Your task to perform on an android device: Open CNN.com Image 0: 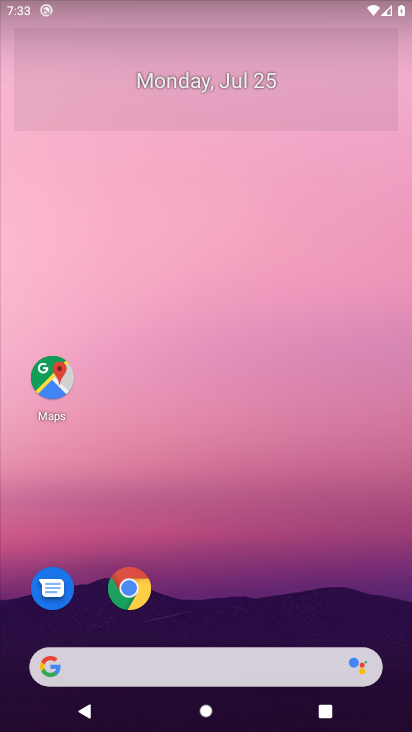
Step 0: click (286, 661)
Your task to perform on an android device: Open CNN.com Image 1: 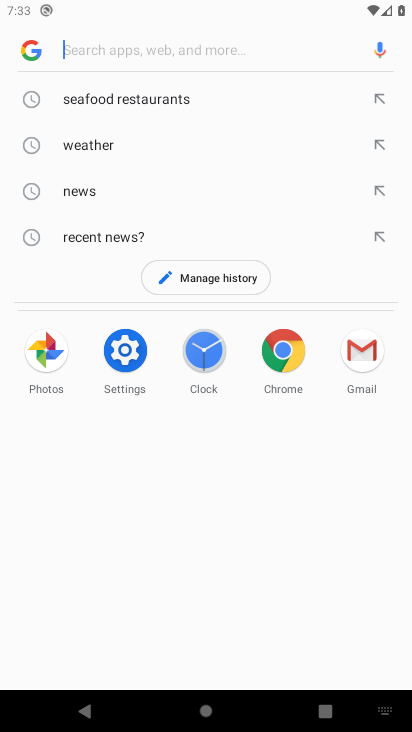
Step 1: click (66, 55)
Your task to perform on an android device: Open CNN.com Image 2: 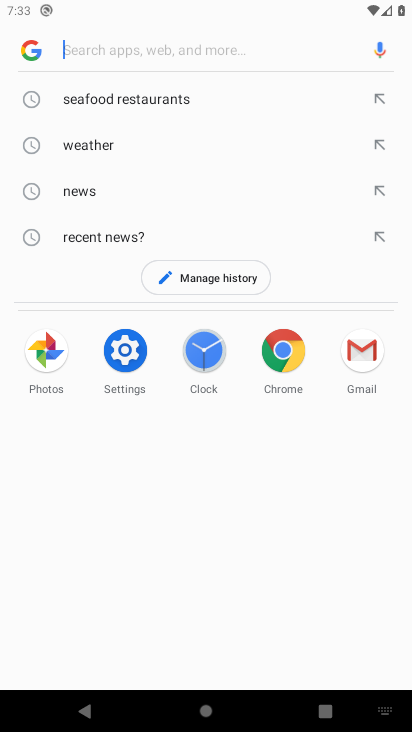
Step 2: type "CNN.com"
Your task to perform on an android device: Open CNN.com Image 3: 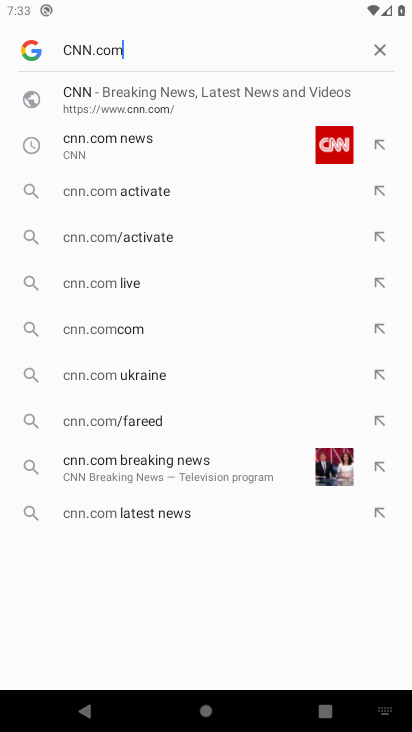
Step 3: press enter
Your task to perform on an android device: Open CNN.com Image 4: 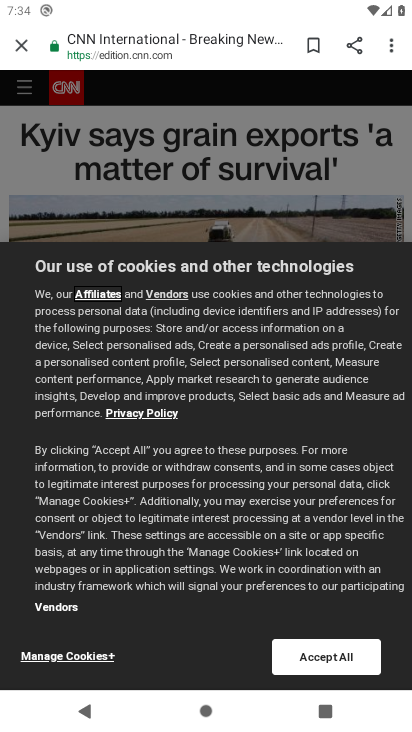
Step 4: task complete